Your task to perform on an android device: Open Google Maps and go to "Timeline" Image 0: 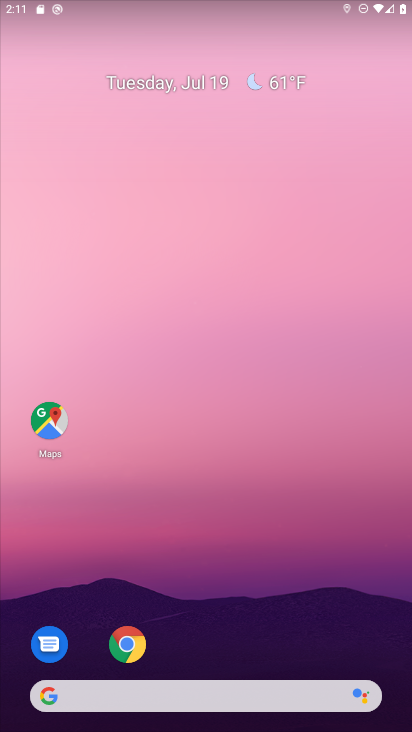
Step 0: drag from (207, 667) to (144, 182)
Your task to perform on an android device: Open Google Maps and go to "Timeline" Image 1: 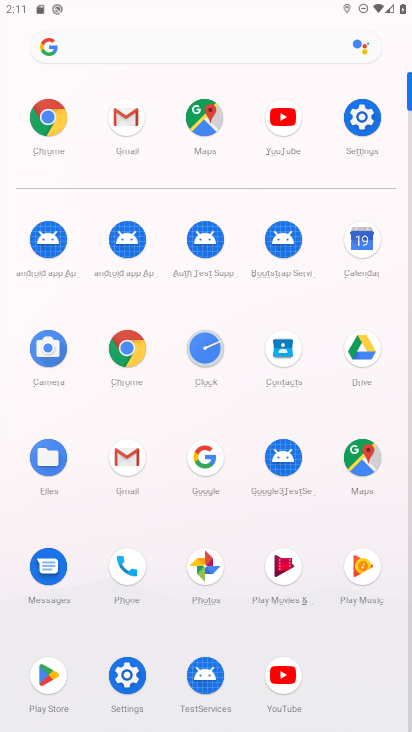
Step 1: click (363, 457)
Your task to perform on an android device: Open Google Maps and go to "Timeline" Image 2: 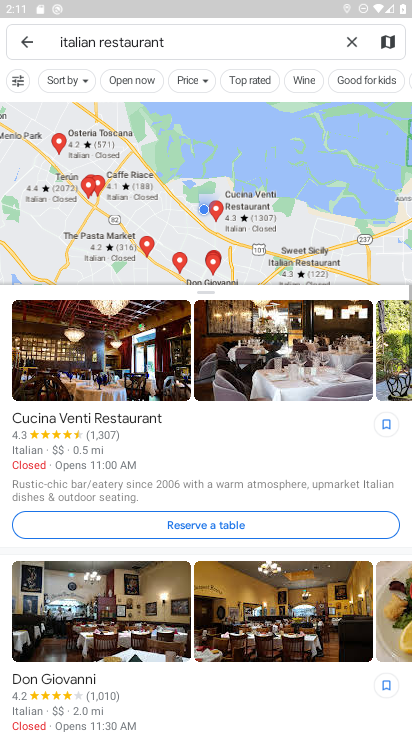
Step 2: click (17, 43)
Your task to perform on an android device: Open Google Maps and go to "Timeline" Image 3: 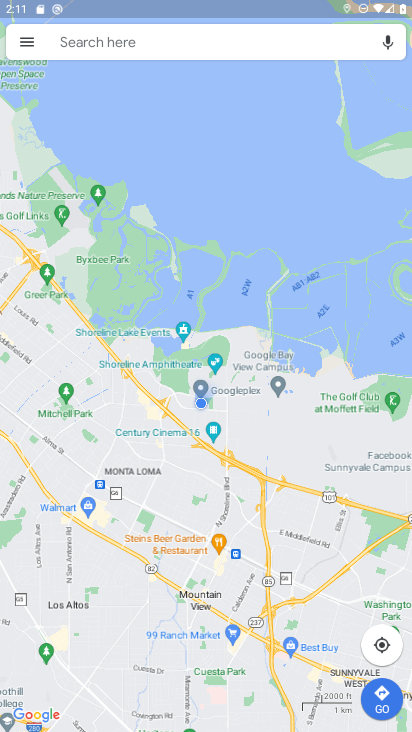
Step 3: click (19, 45)
Your task to perform on an android device: Open Google Maps and go to "Timeline" Image 4: 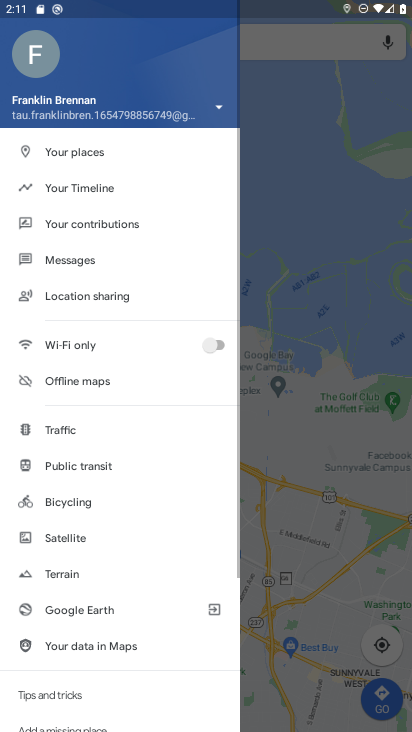
Step 4: click (102, 196)
Your task to perform on an android device: Open Google Maps and go to "Timeline" Image 5: 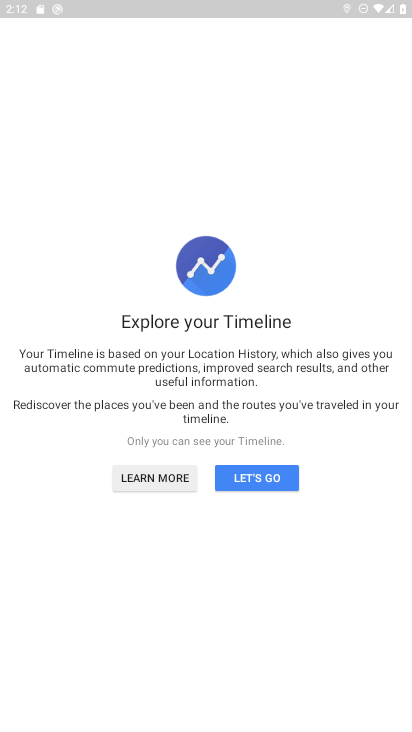
Step 5: click (286, 476)
Your task to perform on an android device: Open Google Maps and go to "Timeline" Image 6: 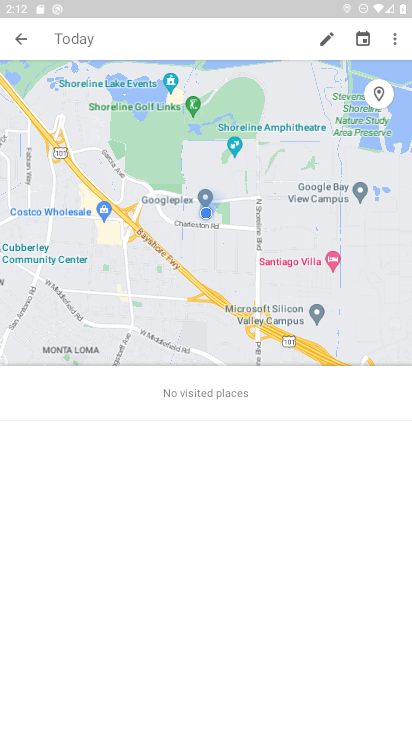
Step 6: task complete